Your task to perform on an android device: check out phone information Image 0: 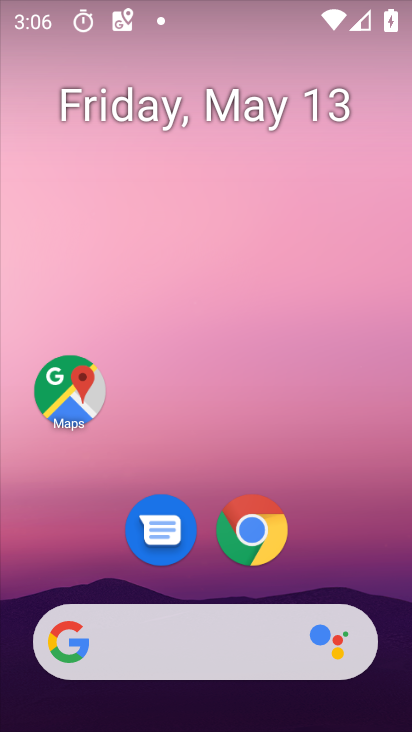
Step 0: drag from (336, 540) to (307, 142)
Your task to perform on an android device: check out phone information Image 1: 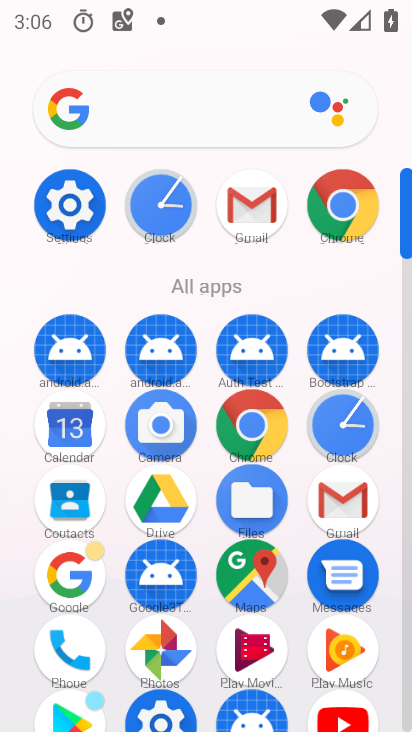
Step 1: drag from (206, 620) to (232, 308)
Your task to perform on an android device: check out phone information Image 2: 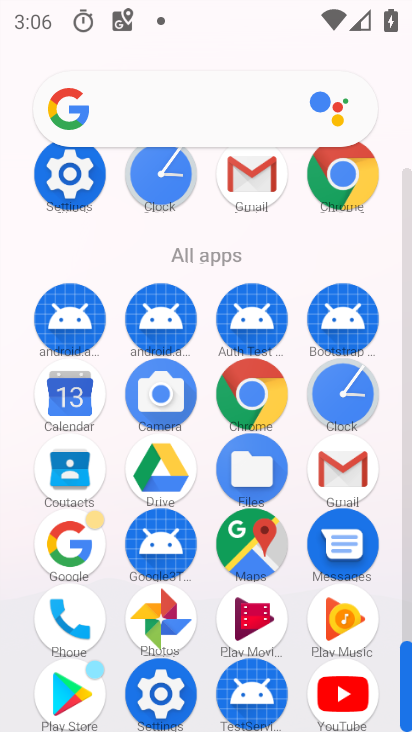
Step 2: click (88, 638)
Your task to perform on an android device: check out phone information Image 3: 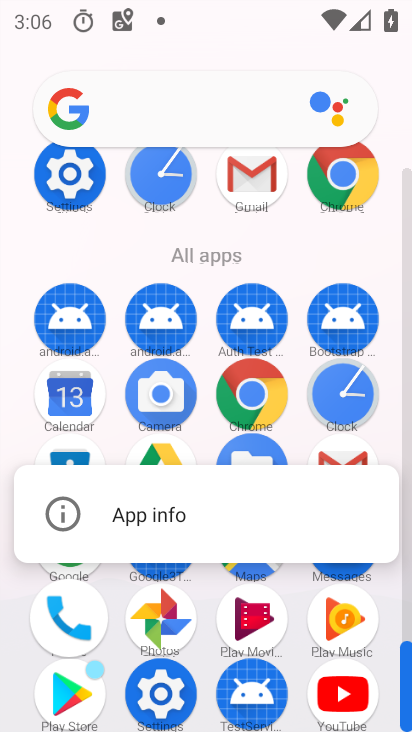
Step 3: click (188, 512)
Your task to perform on an android device: check out phone information Image 4: 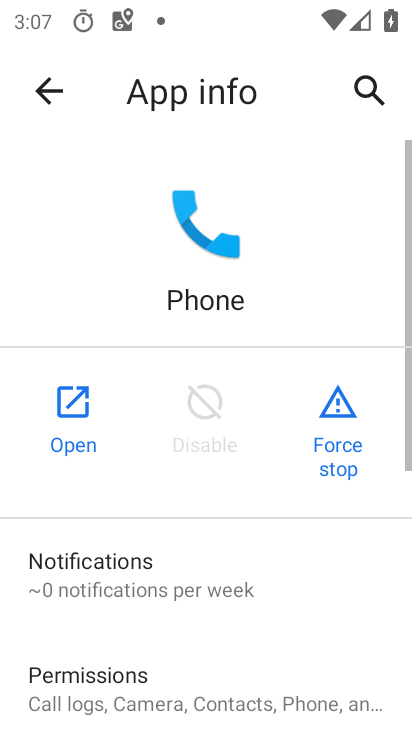
Step 4: task complete